Your task to perform on an android device: turn vacation reply on in the gmail app Image 0: 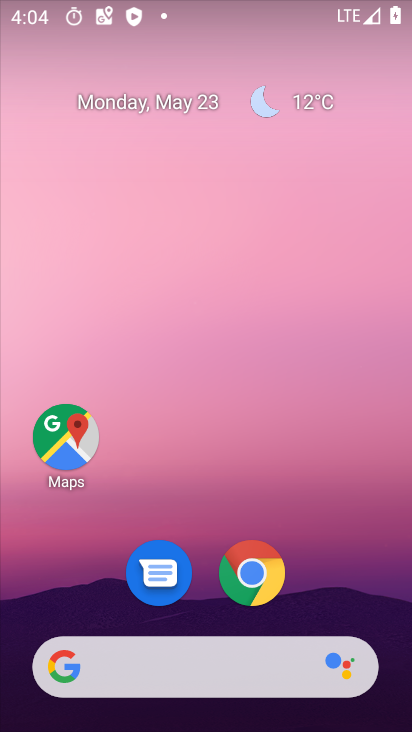
Step 0: press home button
Your task to perform on an android device: turn vacation reply on in the gmail app Image 1: 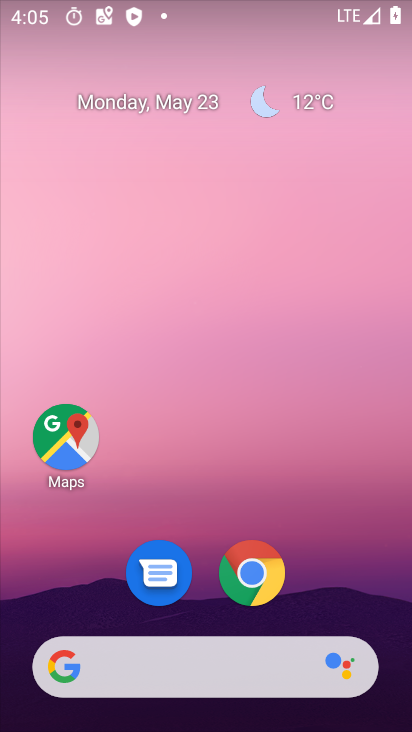
Step 1: drag from (52, 344) to (150, 98)
Your task to perform on an android device: turn vacation reply on in the gmail app Image 2: 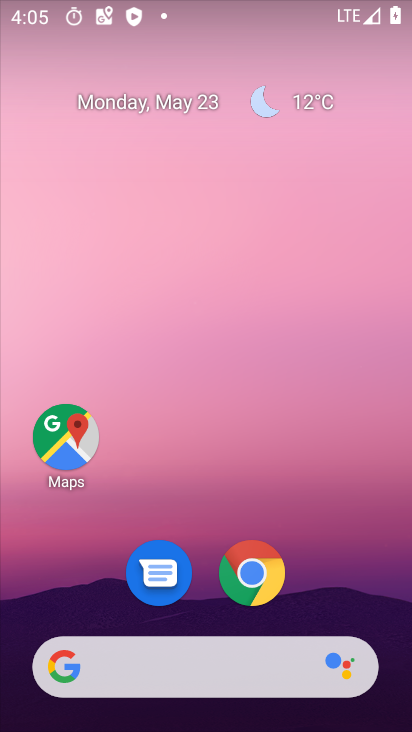
Step 2: click (304, 129)
Your task to perform on an android device: turn vacation reply on in the gmail app Image 3: 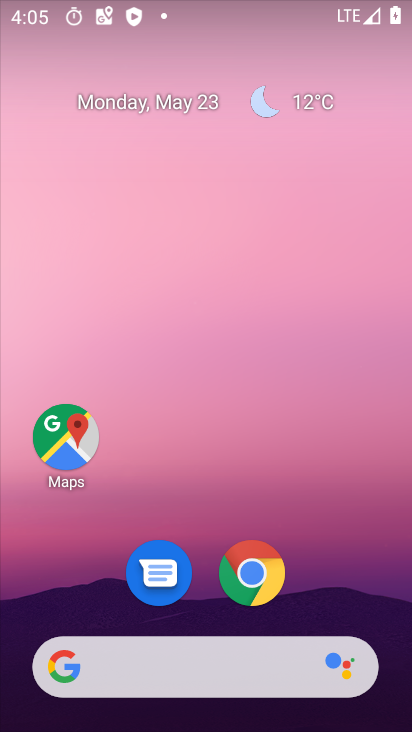
Step 3: drag from (132, 339) to (263, 66)
Your task to perform on an android device: turn vacation reply on in the gmail app Image 4: 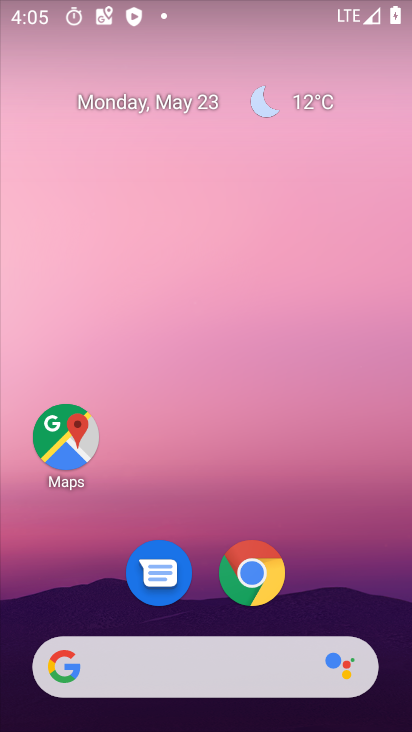
Step 4: drag from (83, 526) to (266, 208)
Your task to perform on an android device: turn vacation reply on in the gmail app Image 5: 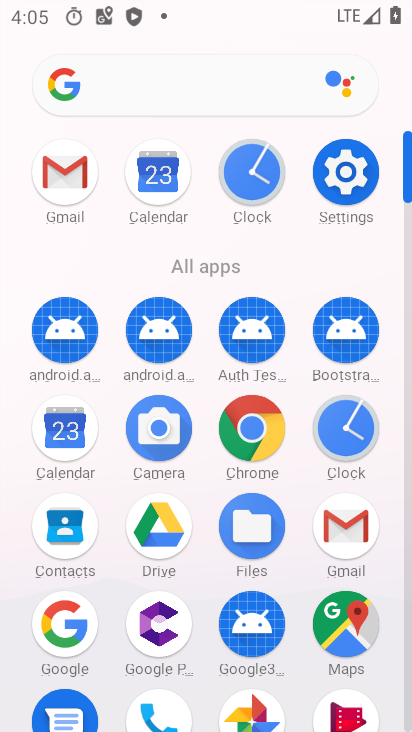
Step 5: click (60, 179)
Your task to perform on an android device: turn vacation reply on in the gmail app Image 6: 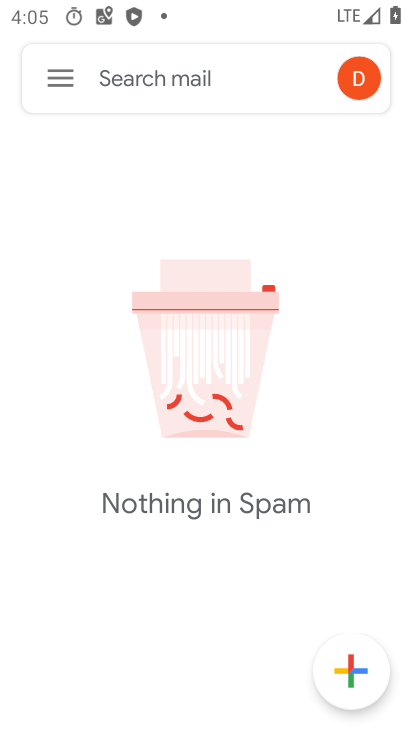
Step 6: click (52, 73)
Your task to perform on an android device: turn vacation reply on in the gmail app Image 7: 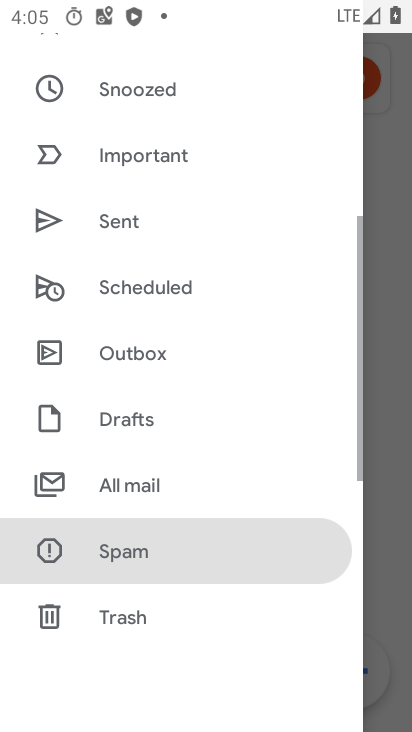
Step 7: drag from (97, 637) to (252, 106)
Your task to perform on an android device: turn vacation reply on in the gmail app Image 8: 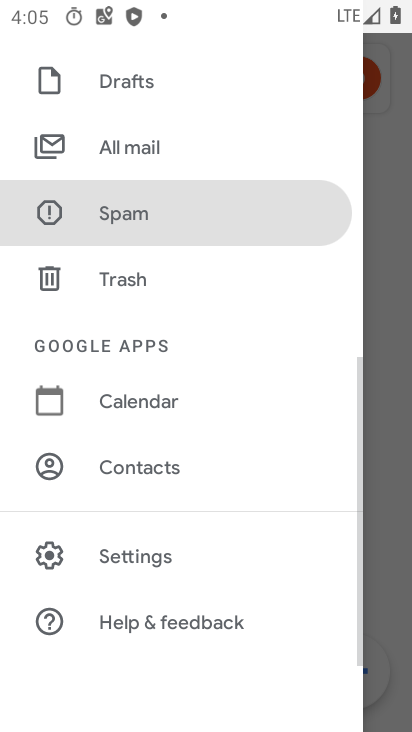
Step 8: click (119, 544)
Your task to perform on an android device: turn vacation reply on in the gmail app Image 9: 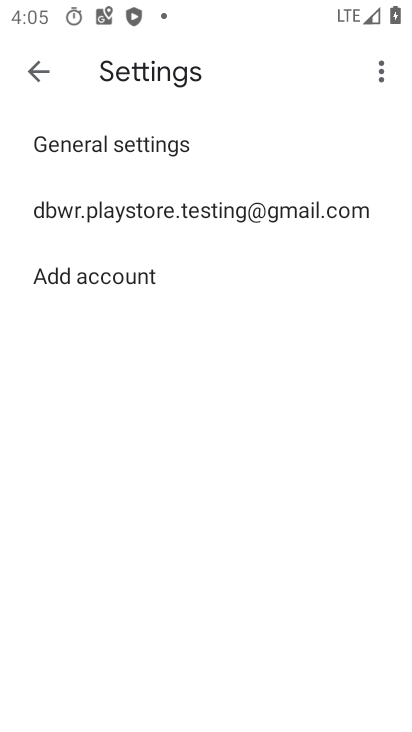
Step 9: click (150, 213)
Your task to perform on an android device: turn vacation reply on in the gmail app Image 10: 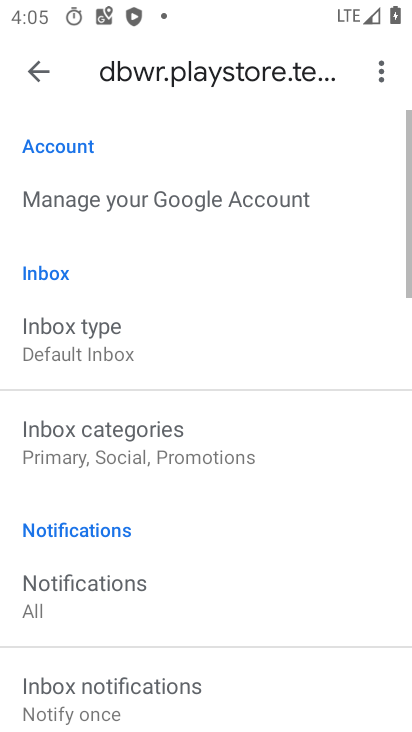
Step 10: drag from (37, 641) to (242, 156)
Your task to perform on an android device: turn vacation reply on in the gmail app Image 11: 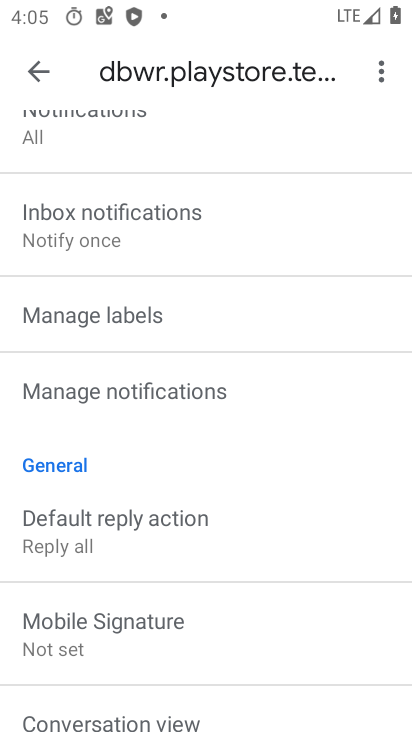
Step 11: drag from (65, 691) to (290, 167)
Your task to perform on an android device: turn vacation reply on in the gmail app Image 12: 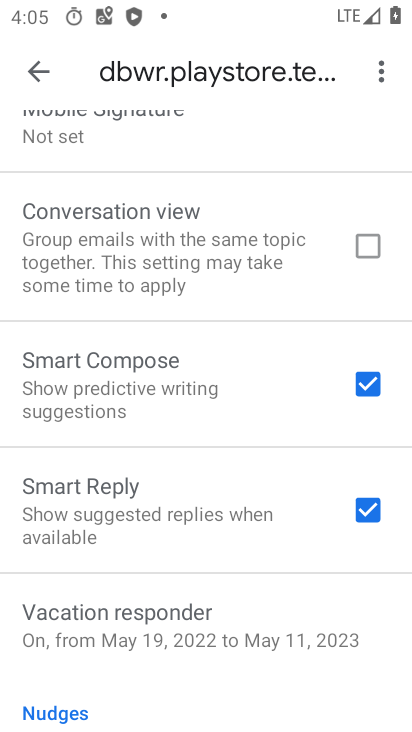
Step 12: click (104, 644)
Your task to perform on an android device: turn vacation reply on in the gmail app Image 13: 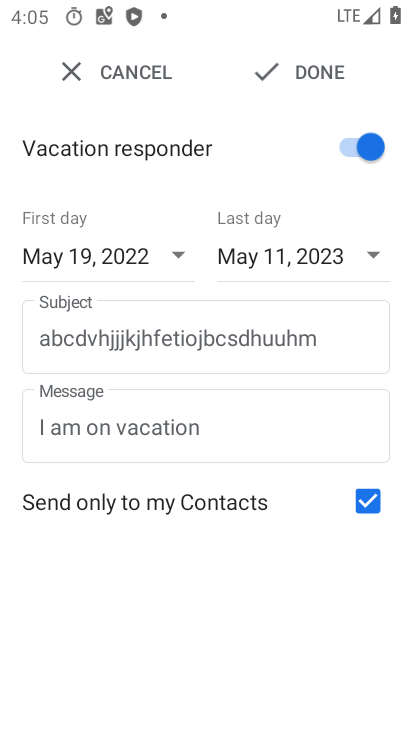
Step 13: click (320, 68)
Your task to perform on an android device: turn vacation reply on in the gmail app Image 14: 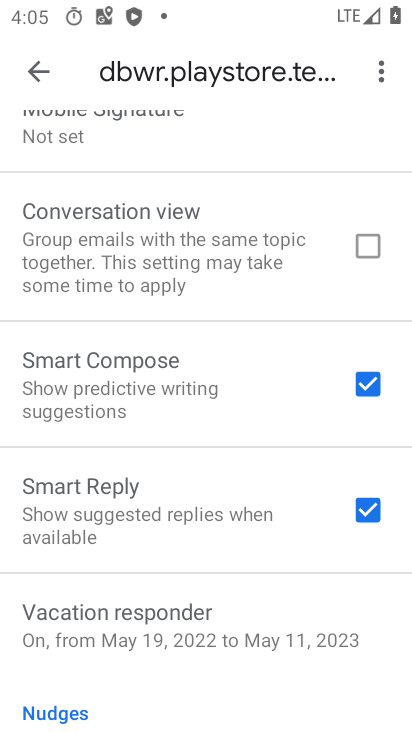
Step 14: task complete